Your task to perform on an android device: open sync settings in chrome Image 0: 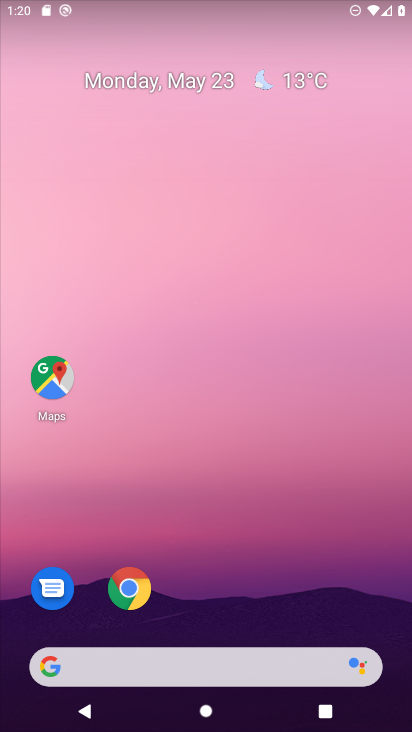
Step 0: click (130, 593)
Your task to perform on an android device: open sync settings in chrome Image 1: 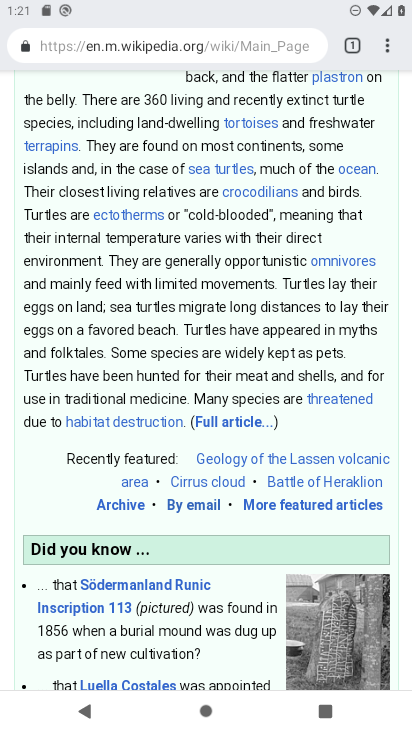
Step 1: click (385, 45)
Your task to perform on an android device: open sync settings in chrome Image 2: 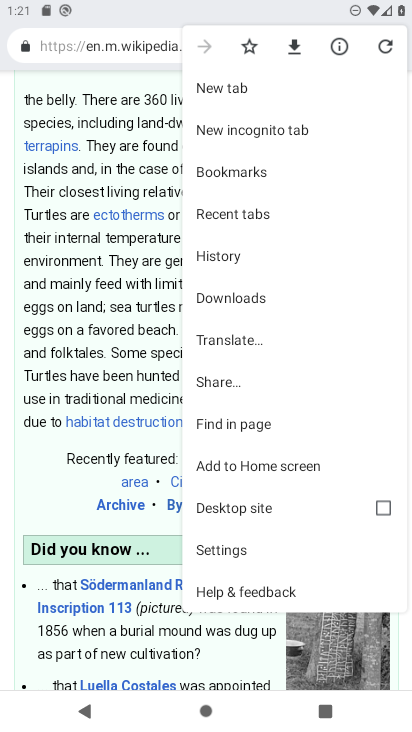
Step 2: click (218, 554)
Your task to perform on an android device: open sync settings in chrome Image 3: 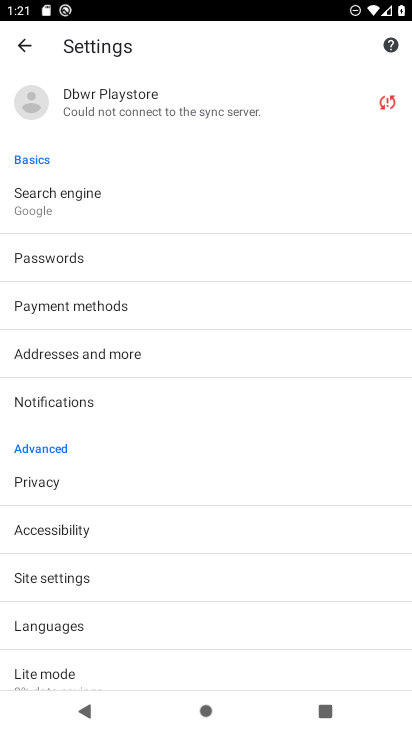
Step 3: click (109, 101)
Your task to perform on an android device: open sync settings in chrome Image 4: 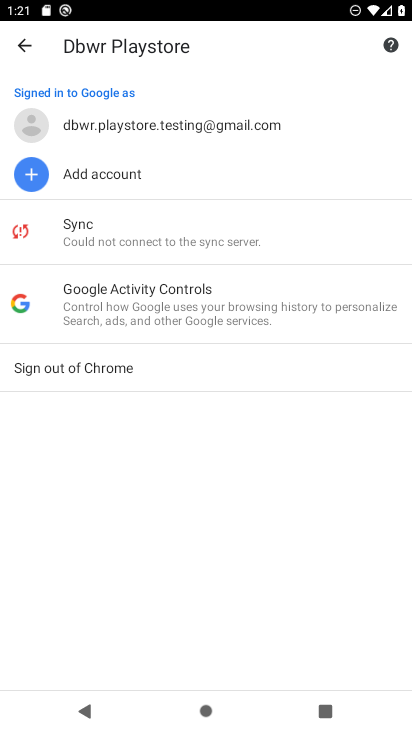
Step 4: click (97, 237)
Your task to perform on an android device: open sync settings in chrome Image 5: 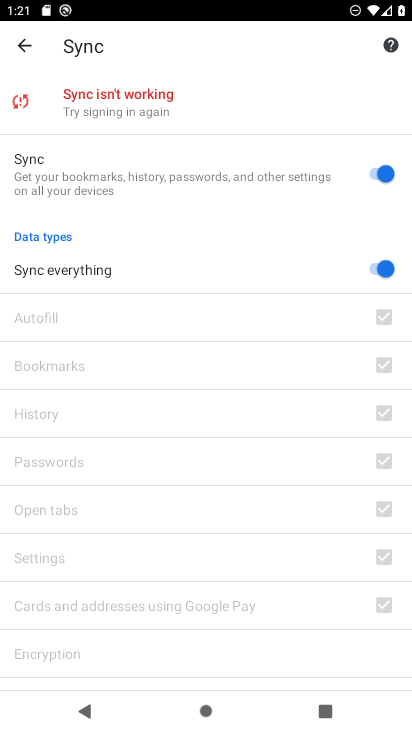
Step 5: click (124, 95)
Your task to perform on an android device: open sync settings in chrome Image 6: 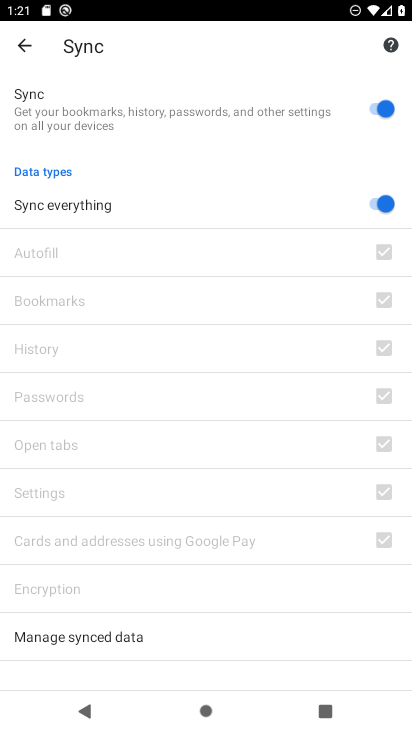
Step 6: task complete